Your task to perform on an android device: turn on javascript in the chrome app Image 0: 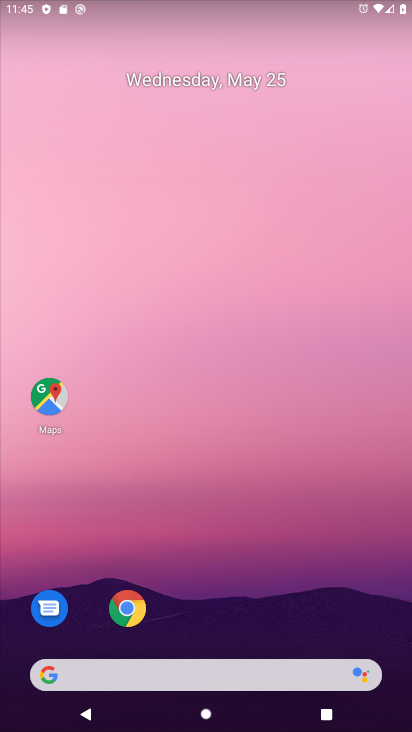
Step 0: click (125, 608)
Your task to perform on an android device: turn on javascript in the chrome app Image 1: 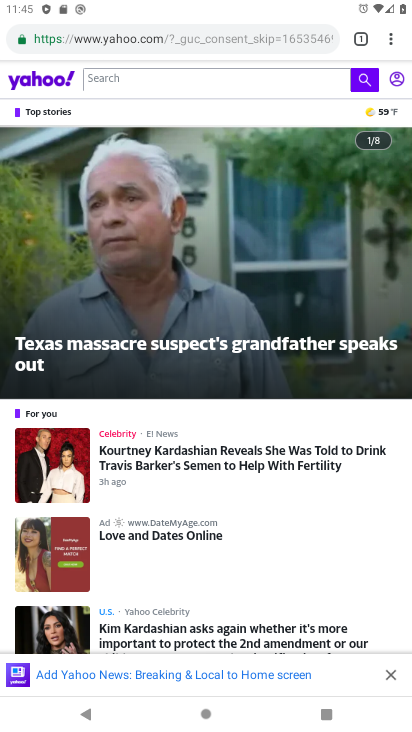
Step 1: click (393, 42)
Your task to perform on an android device: turn on javascript in the chrome app Image 2: 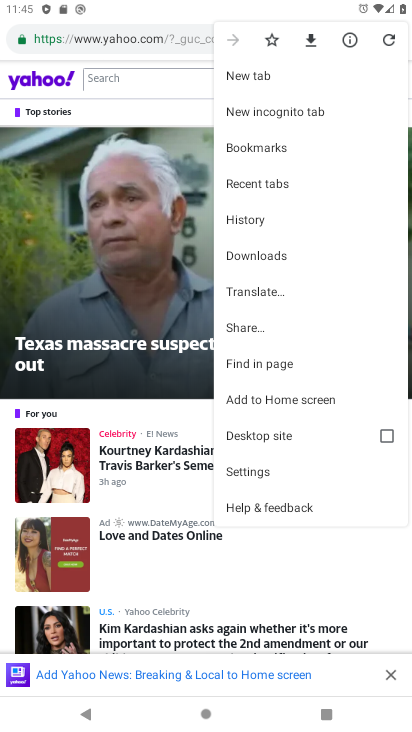
Step 2: click (247, 473)
Your task to perform on an android device: turn on javascript in the chrome app Image 3: 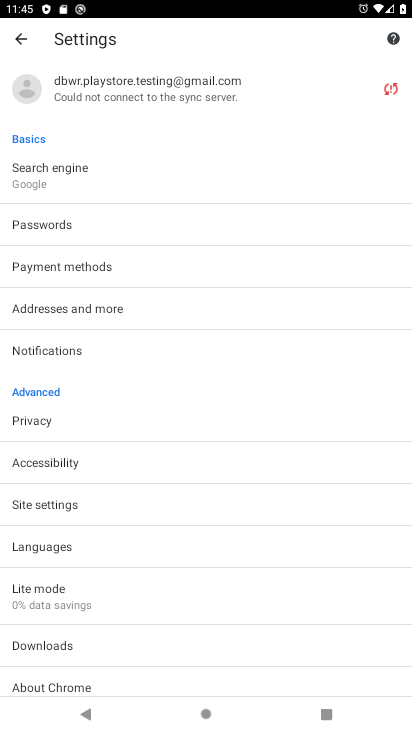
Step 3: click (61, 505)
Your task to perform on an android device: turn on javascript in the chrome app Image 4: 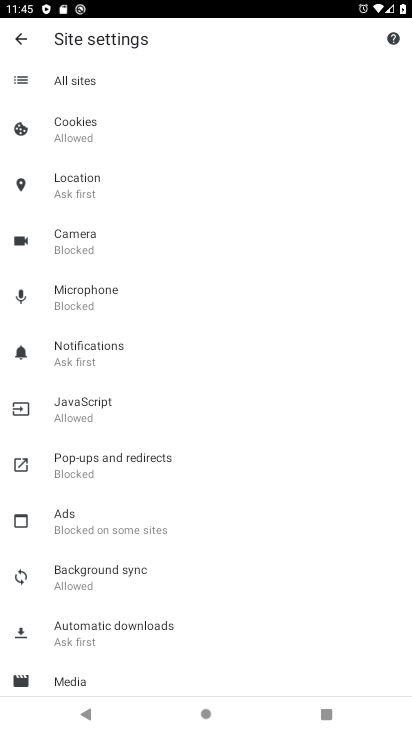
Step 4: click (72, 408)
Your task to perform on an android device: turn on javascript in the chrome app Image 5: 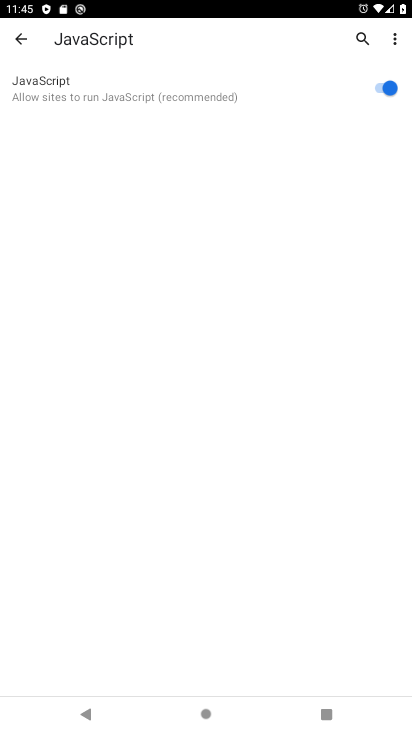
Step 5: task complete